Your task to perform on an android device: Open the phone app and click the voicemail tab. Image 0: 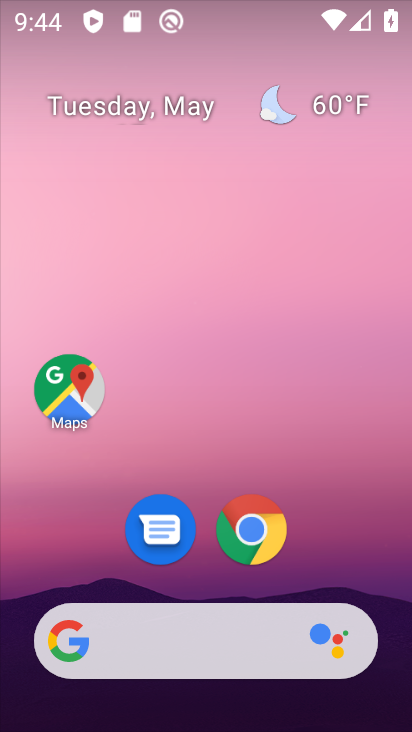
Step 0: drag from (151, 592) to (160, 223)
Your task to perform on an android device: Open the phone app and click the voicemail tab. Image 1: 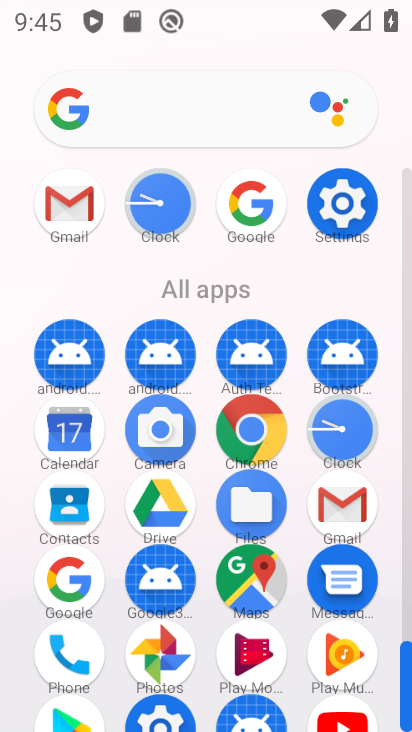
Step 1: click (65, 651)
Your task to perform on an android device: Open the phone app and click the voicemail tab. Image 2: 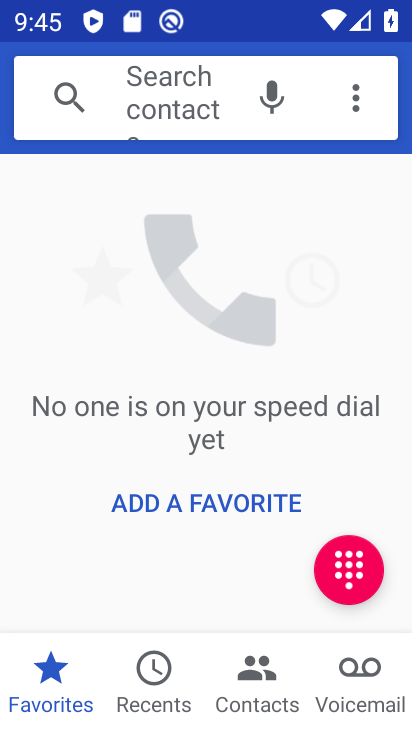
Step 2: click (366, 675)
Your task to perform on an android device: Open the phone app and click the voicemail tab. Image 3: 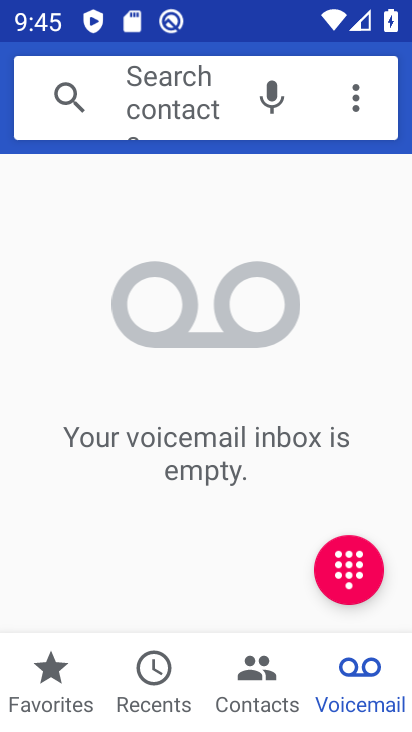
Step 3: task complete